Your task to perform on an android device: Open Chrome and go to the settings page Image 0: 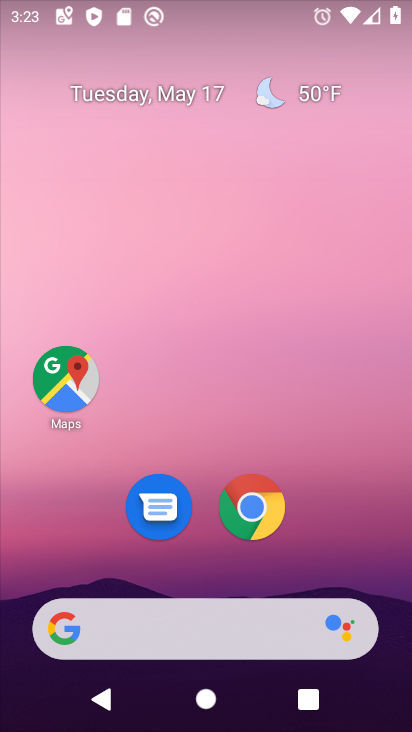
Step 0: click (256, 497)
Your task to perform on an android device: Open Chrome and go to the settings page Image 1: 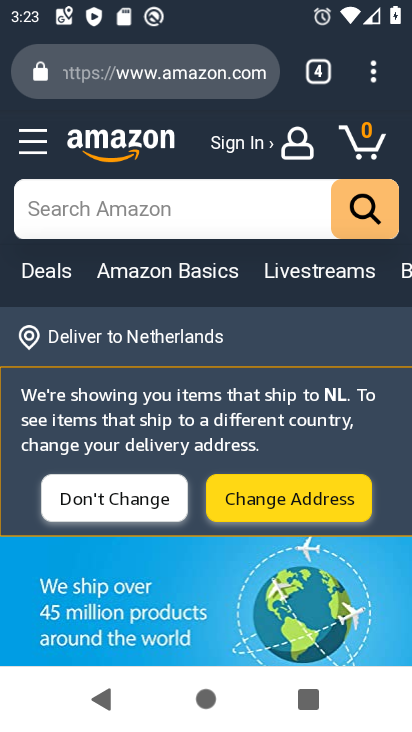
Step 1: click (375, 83)
Your task to perform on an android device: Open Chrome and go to the settings page Image 2: 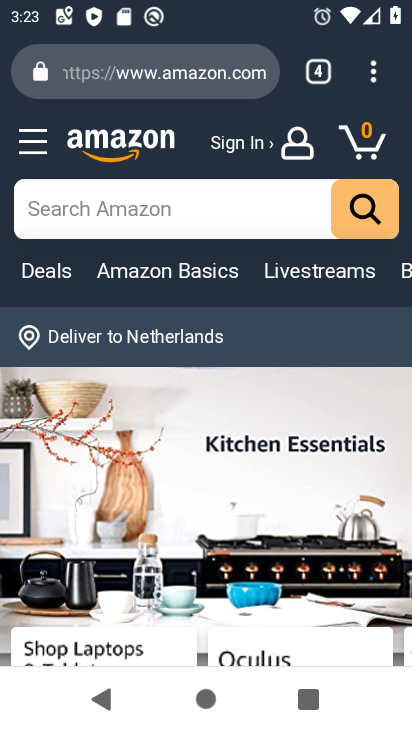
Step 2: click (376, 73)
Your task to perform on an android device: Open Chrome and go to the settings page Image 3: 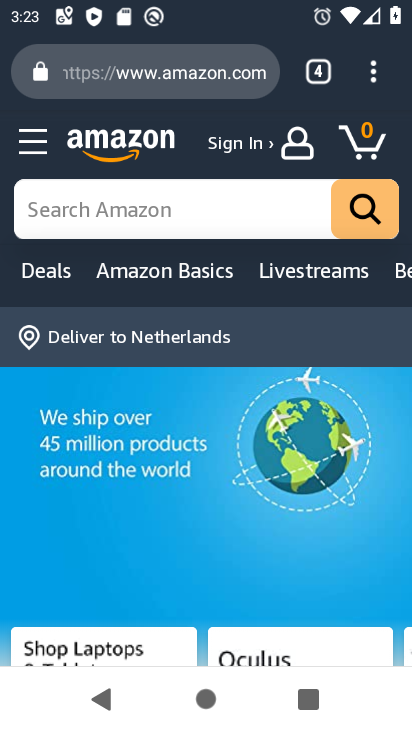
Step 3: click (376, 64)
Your task to perform on an android device: Open Chrome and go to the settings page Image 4: 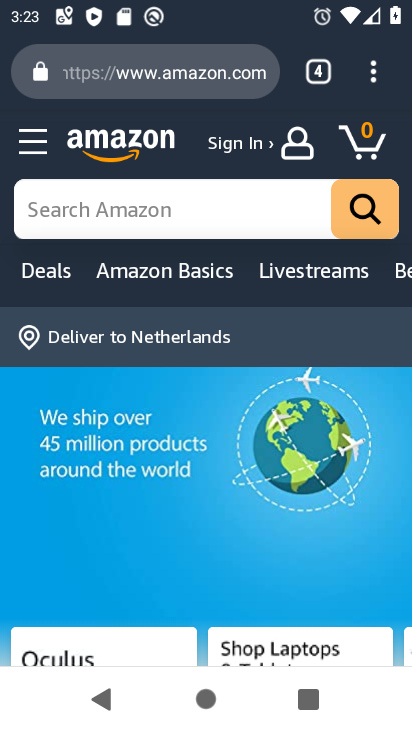
Step 4: click (371, 77)
Your task to perform on an android device: Open Chrome and go to the settings page Image 5: 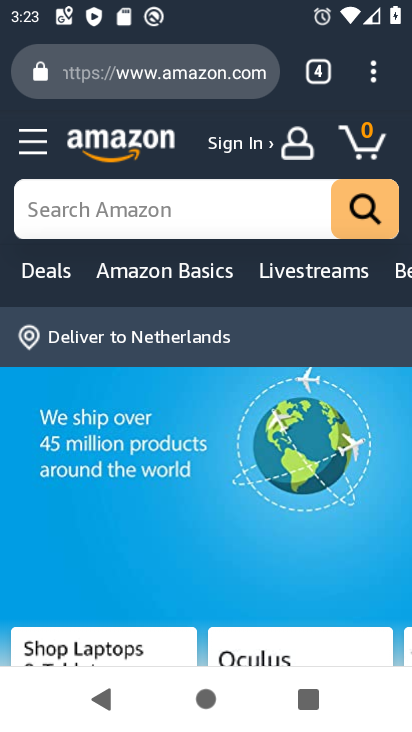
Step 5: click (370, 73)
Your task to perform on an android device: Open Chrome and go to the settings page Image 6: 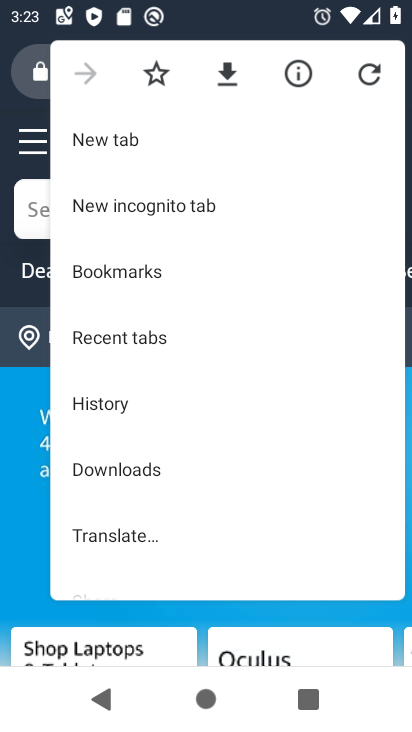
Step 6: drag from (234, 524) to (166, 135)
Your task to perform on an android device: Open Chrome and go to the settings page Image 7: 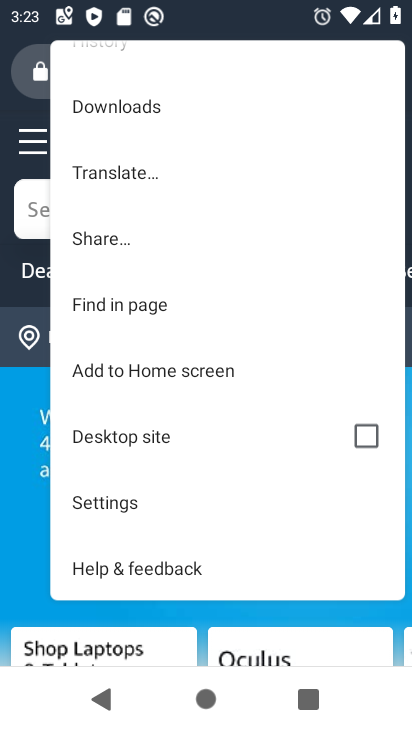
Step 7: click (157, 505)
Your task to perform on an android device: Open Chrome and go to the settings page Image 8: 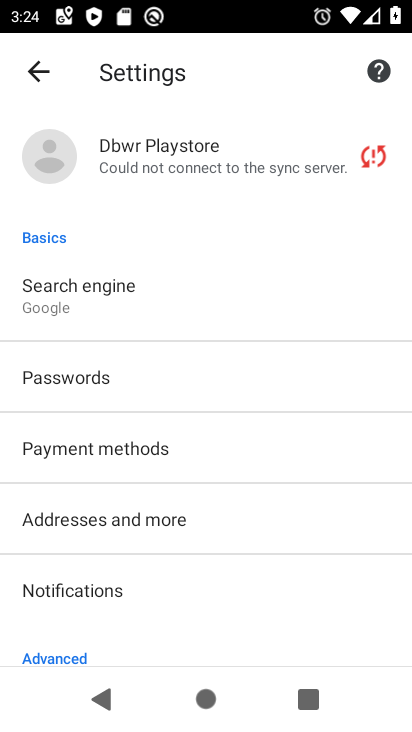
Step 8: task complete